Your task to perform on an android device: change the clock display to digital Image 0: 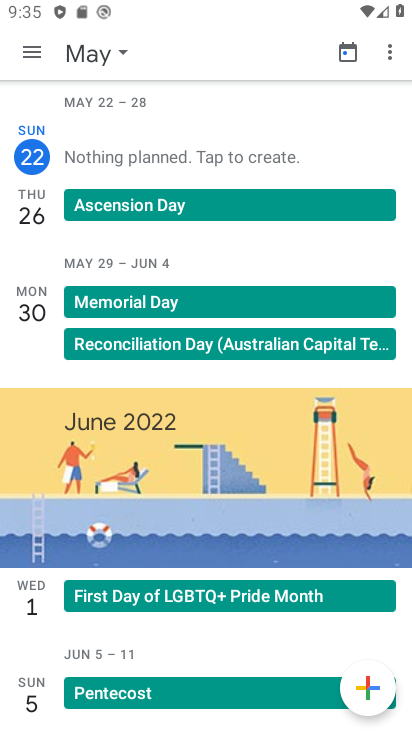
Step 0: press home button
Your task to perform on an android device: change the clock display to digital Image 1: 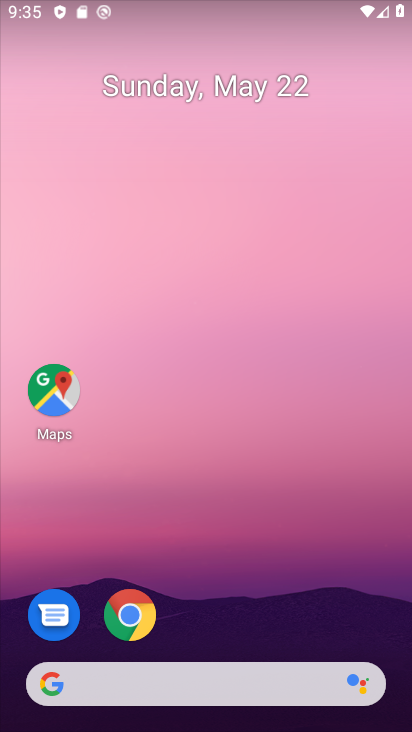
Step 1: drag from (245, 626) to (227, 127)
Your task to perform on an android device: change the clock display to digital Image 2: 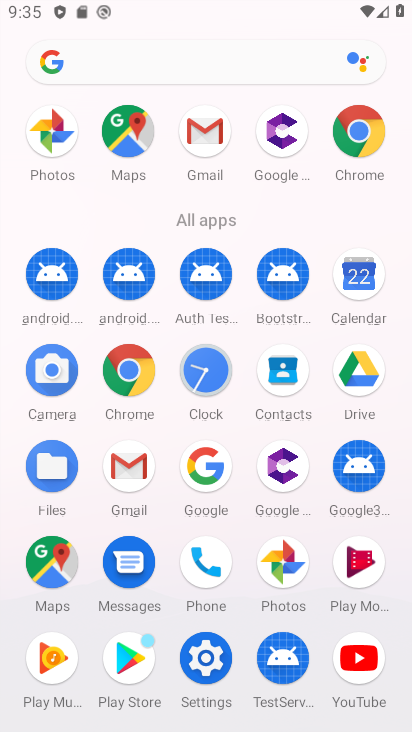
Step 2: click (209, 372)
Your task to perform on an android device: change the clock display to digital Image 3: 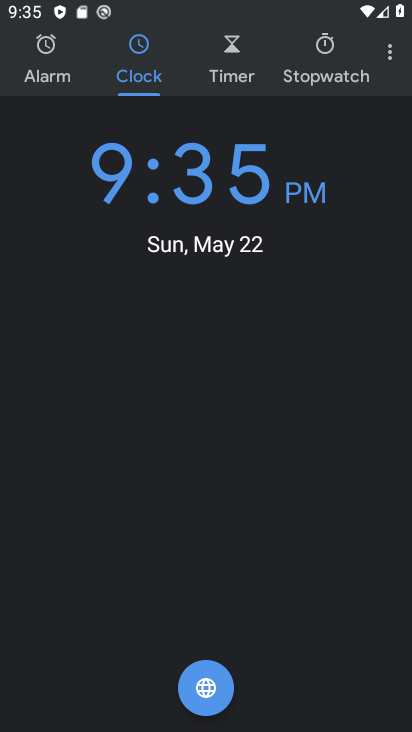
Step 3: drag from (387, 50) to (333, 84)
Your task to perform on an android device: change the clock display to digital Image 4: 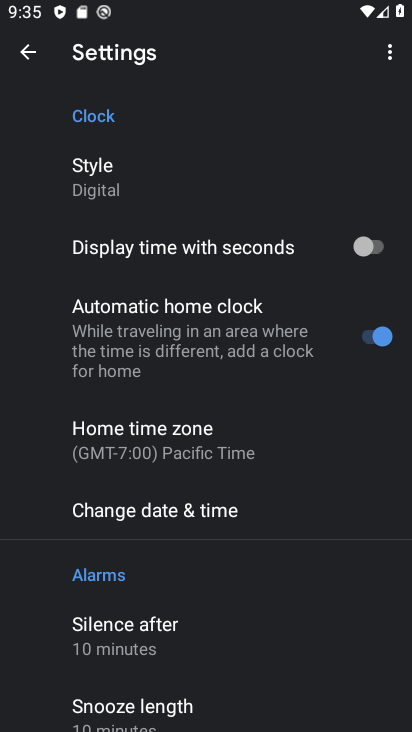
Step 4: click (72, 176)
Your task to perform on an android device: change the clock display to digital Image 5: 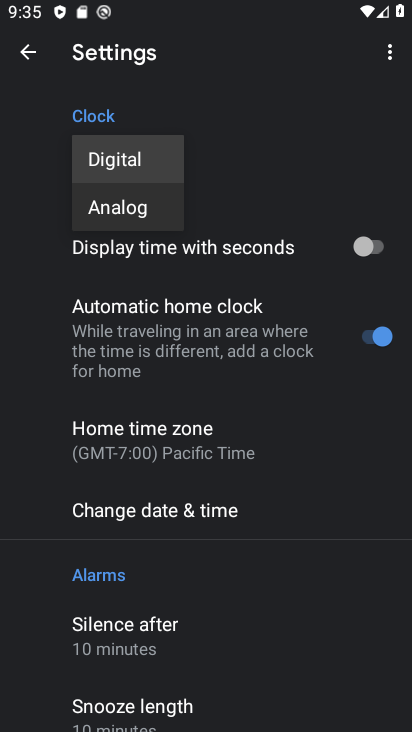
Step 5: task complete